Your task to perform on an android device: toggle wifi Image 0: 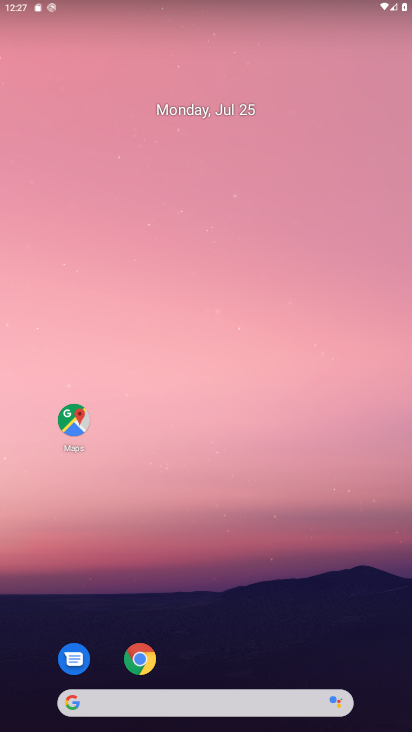
Step 0: press home button
Your task to perform on an android device: toggle wifi Image 1: 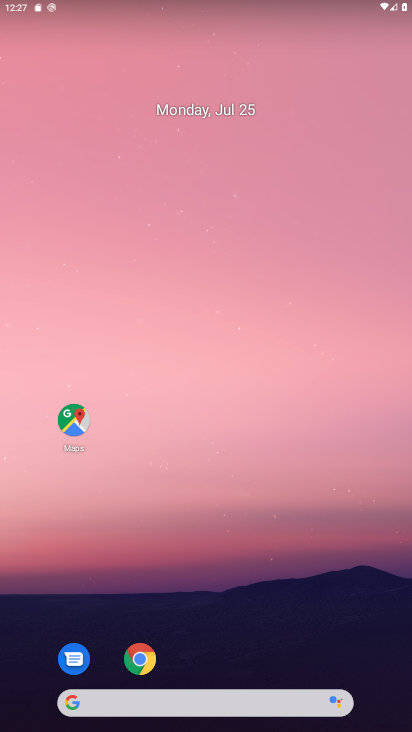
Step 1: drag from (216, 673) to (182, 4)
Your task to perform on an android device: toggle wifi Image 2: 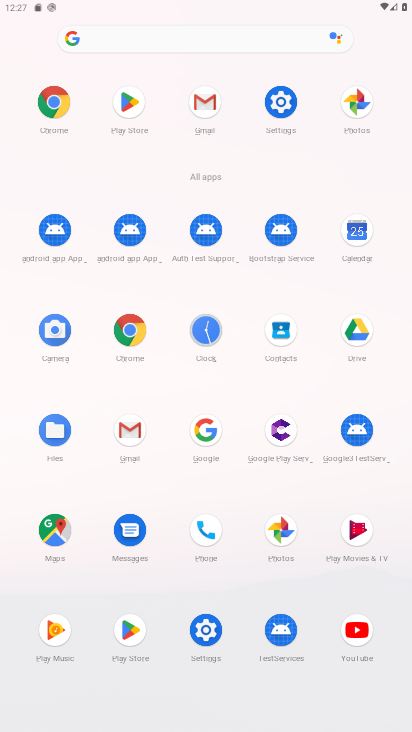
Step 2: click (280, 96)
Your task to perform on an android device: toggle wifi Image 3: 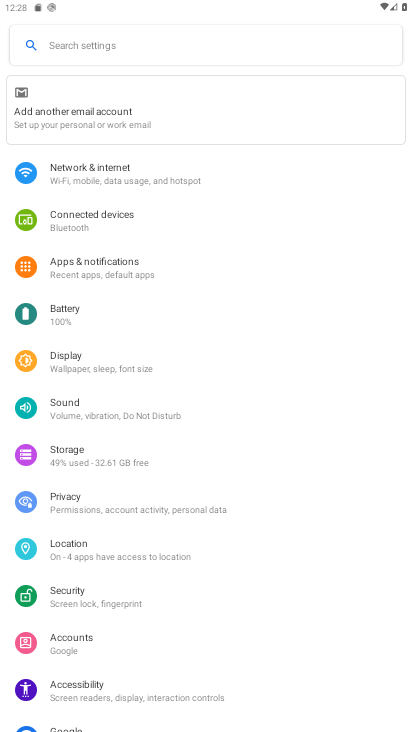
Step 3: click (164, 167)
Your task to perform on an android device: toggle wifi Image 4: 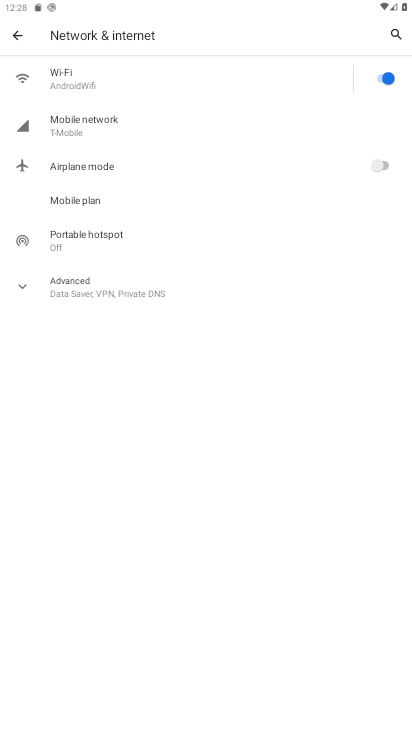
Step 4: click (102, 83)
Your task to perform on an android device: toggle wifi Image 5: 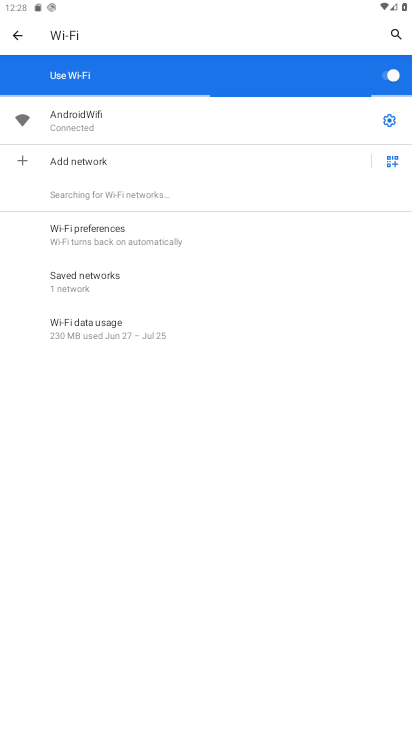
Step 5: click (388, 75)
Your task to perform on an android device: toggle wifi Image 6: 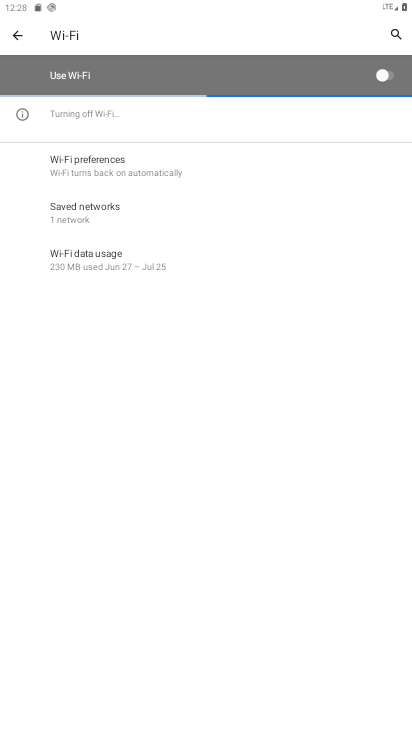
Step 6: task complete